Your task to perform on an android device: change the upload size in google photos Image 0: 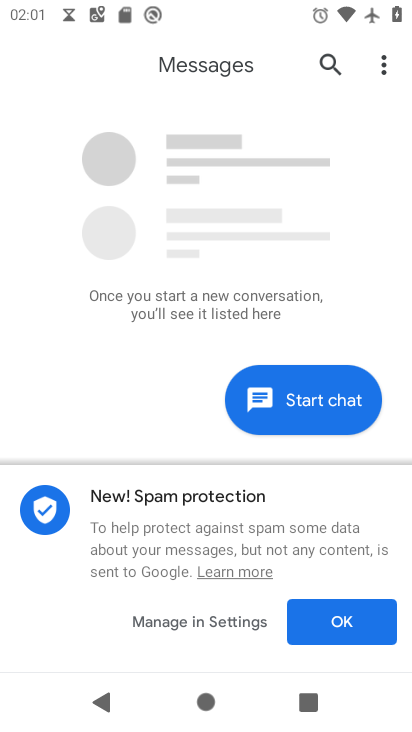
Step 0: press home button
Your task to perform on an android device: change the upload size in google photos Image 1: 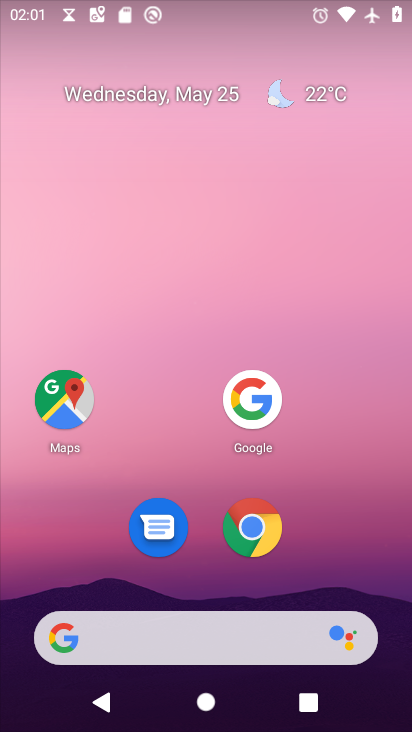
Step 1: drag from (183, 637) to (344, 106)
Your task to perform on an android device: change the upload size in google photos Image 2: 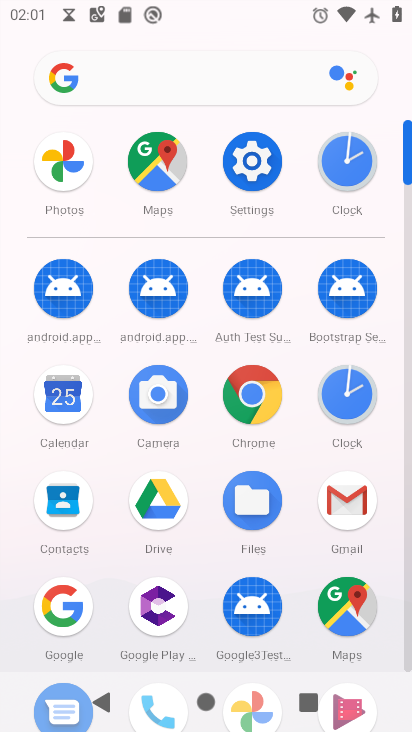
Step 2: drag from (210, 622) to (343, 260)
Your task to perform on an android device: change the upload size in google photos Image 3: 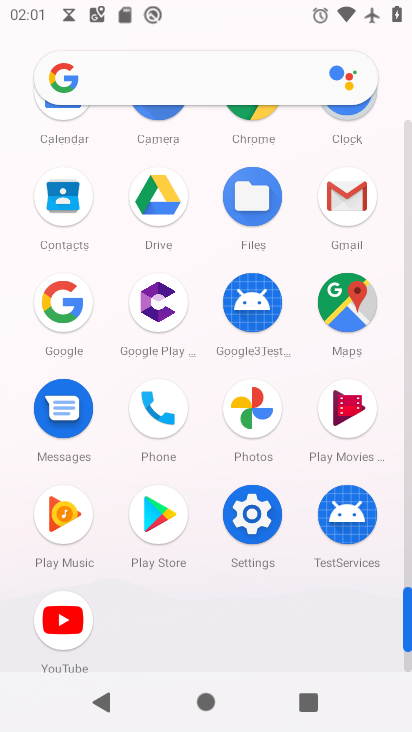
Step 3: click (257, 407)
Your task to perform on an android device: change the upload size in google photos Image 4: 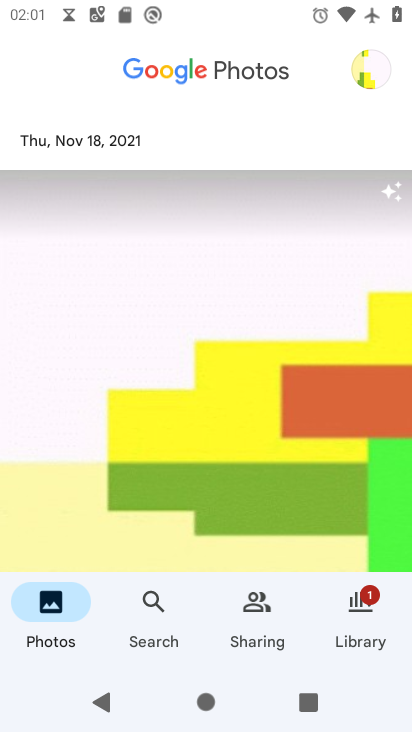
Step 4: click (382, 73)
Your task to perform on an android device: change the upload size in google photos Image 5: 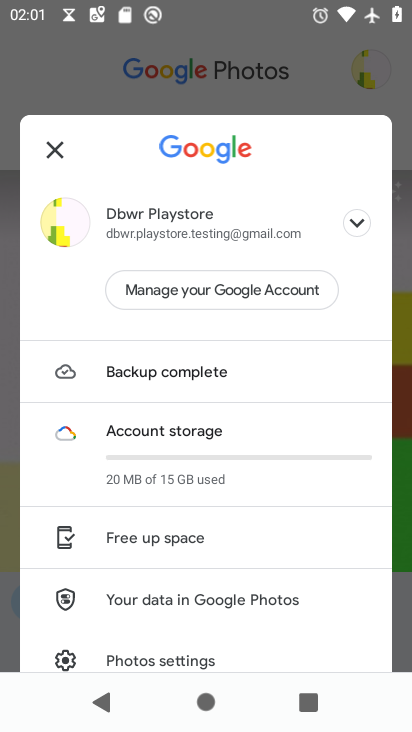
Step 5: click (164, 658)
Your task to perform on an android device: change the upload size in google photos Image 6: 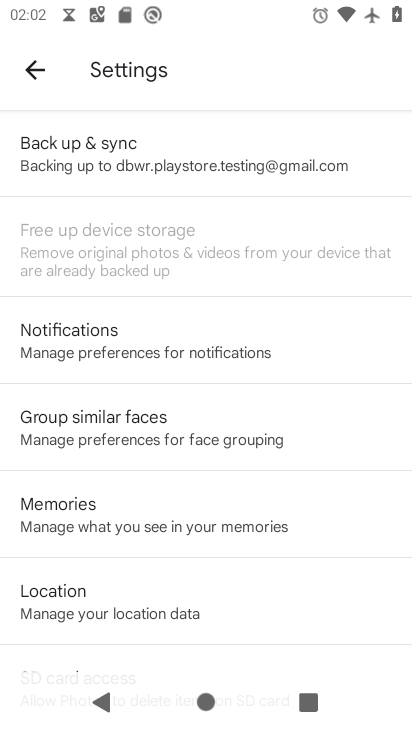
Step 6: click (175, 163)
Your task to perform on an android device: change the upload size in google photos Image 7: 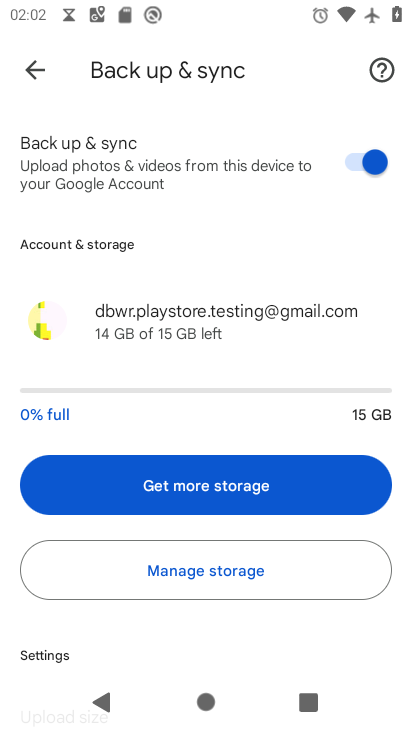
Step 7: drag from (181, 601) to (369, 46)
Your task to perform on an android device: change the upload size in google photos Image 8: 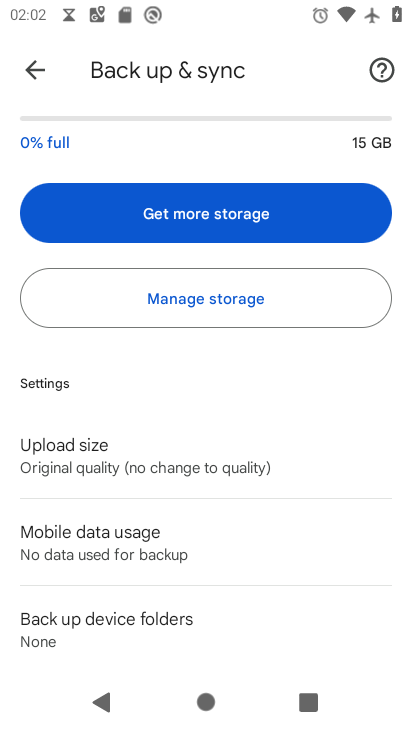
Step 8: click (119, 453)
Your task to perform on an android device: change the upload size in google photos Image 9: 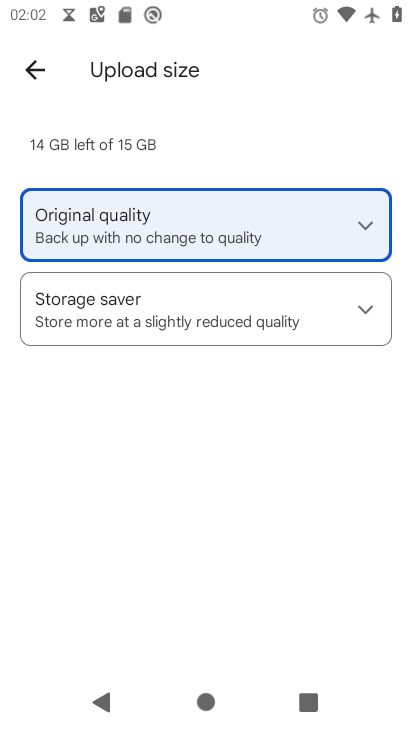
Step 9: click (364, 308)
Your task to perform on an android device: change the upload size in google photos Image 10: 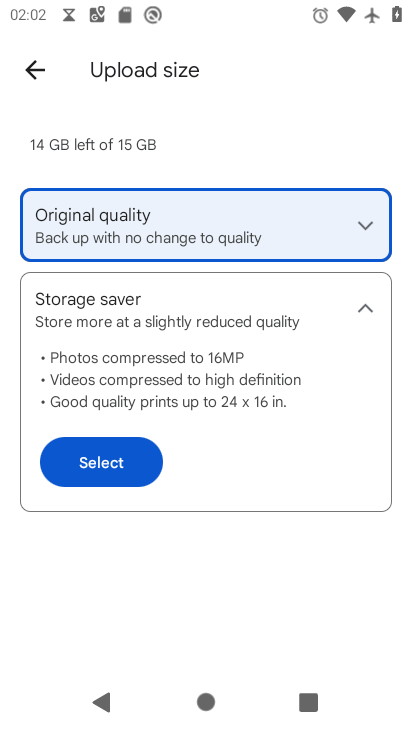
Step 10: click (99, 465)
Your task to perform on an android device: change the upload size in google photos Image 11: 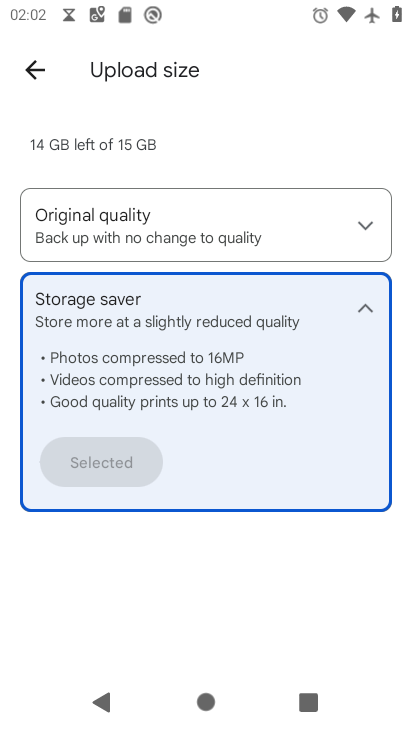
Step 11: task complete